Your task to perform on an android device: Show me recent news Image 0: 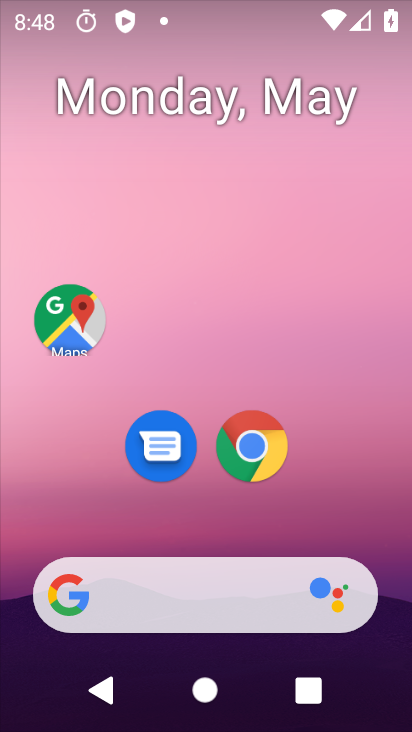
Step 0: click (106, 599)
Your task to perform on an android device: Show me recent news Image 1: 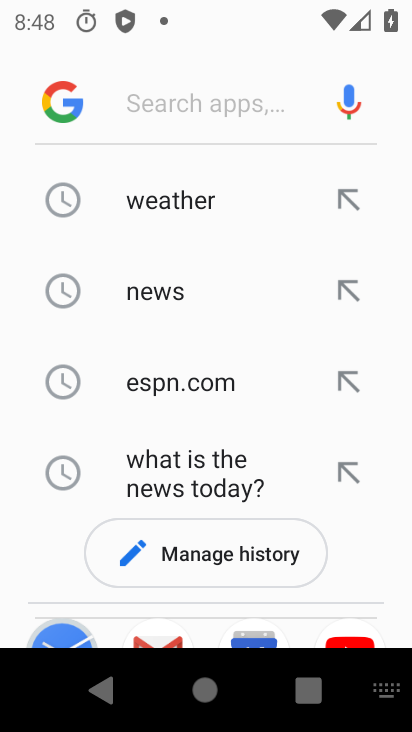
Step 1: type "recent news"
Your task to perform on an android device: Show me recent news Image 2: 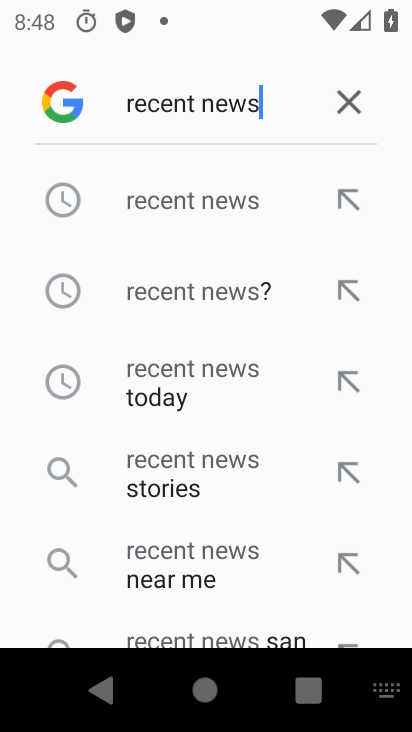
Step 2: click (171, 208)
Your task to perform on an android device: Show me recent news Image 3: 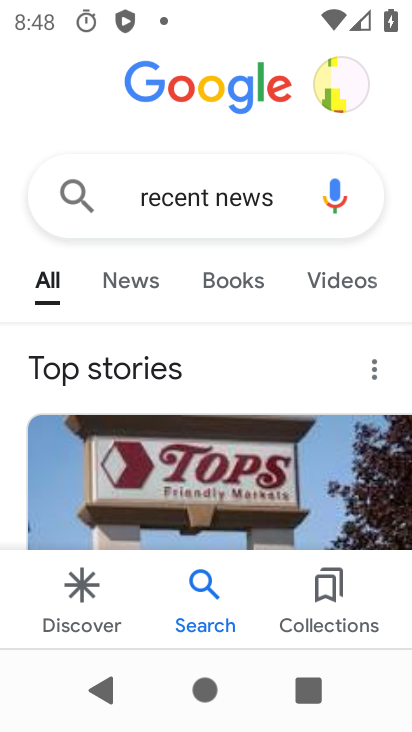
Step 3: drag from (201, 452) to (197, 204)
Your task to perform on an android device: Show me recent news Image 4: 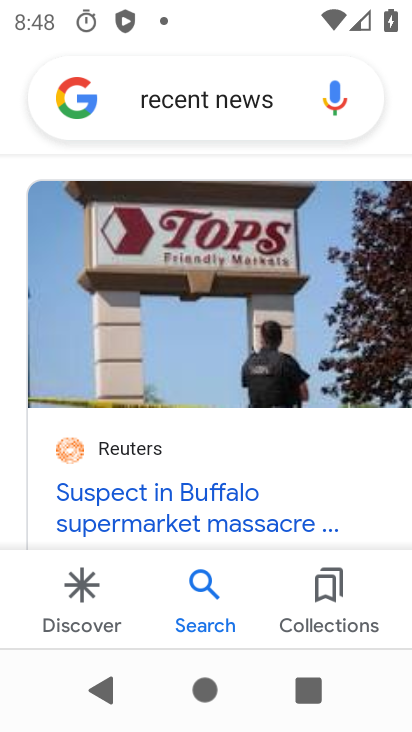
Step 4: drag from (204, 435) to (191, 221)
Your task to perform on an android device: Show me recent news Image 5: 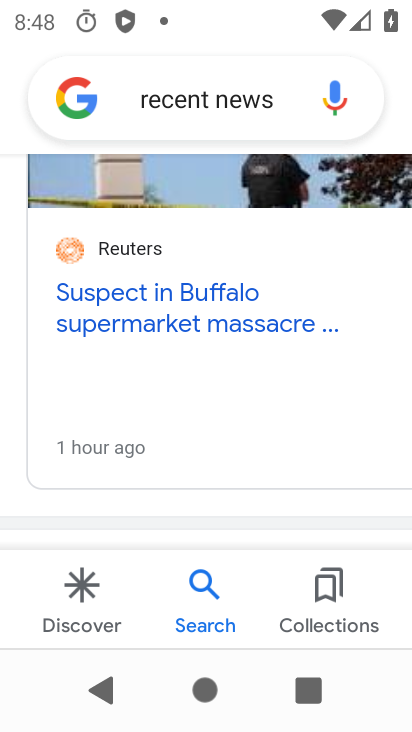
Step 5: drag from (246, 439) to (215, 161)
Your task to perform on an android device: Show me recent news Image 6: 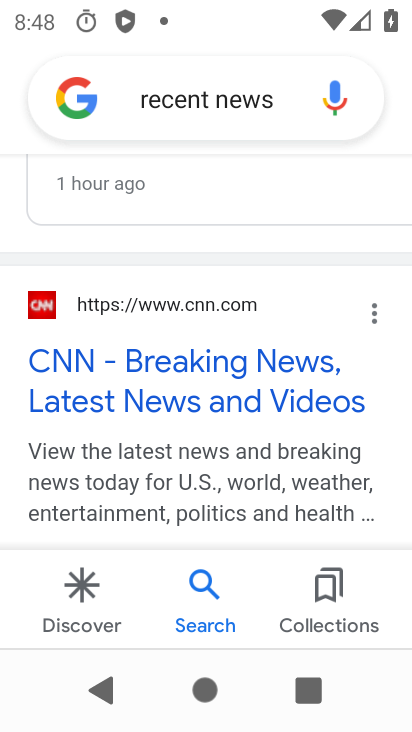
Step 6: drag from (207, 218) to (154, 730)
Your task to perform on an android device: Show me recent news Image 7: 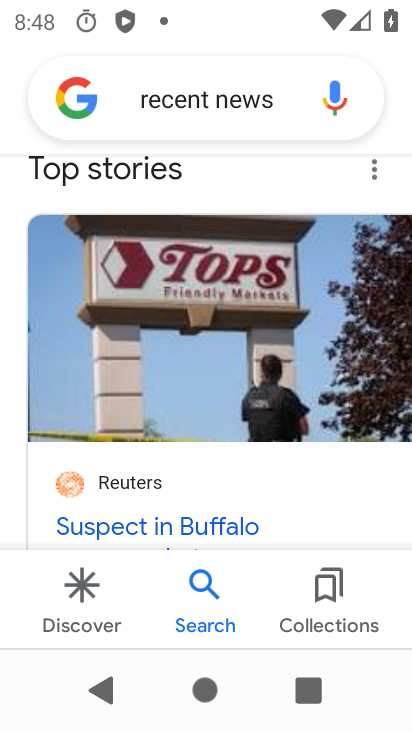
Step 7: drag from (182, 381) to (190, 479)
Your task to perform on an android device: Show me recent news Image 8: 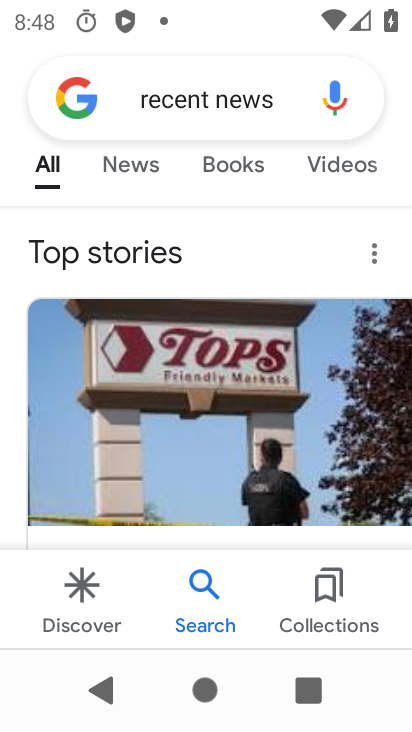
Step 8: click (124, 172)
Your task to perform on an android device: Show me recent news Image 9: 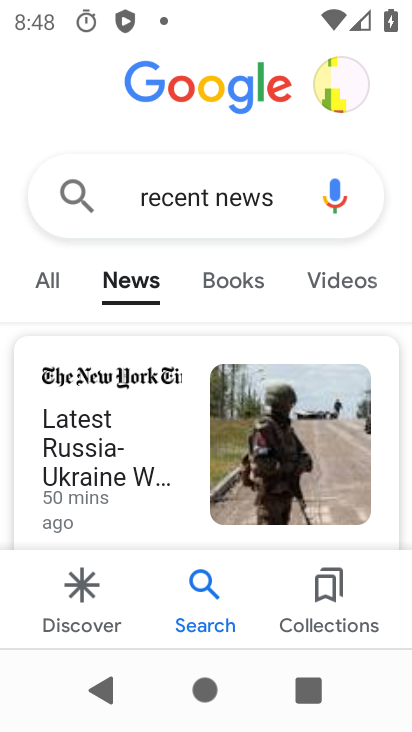
Step 9: drag from (187, 435) to (160, 114)
Your task to perform on an android device: Show me recent news Image 10: 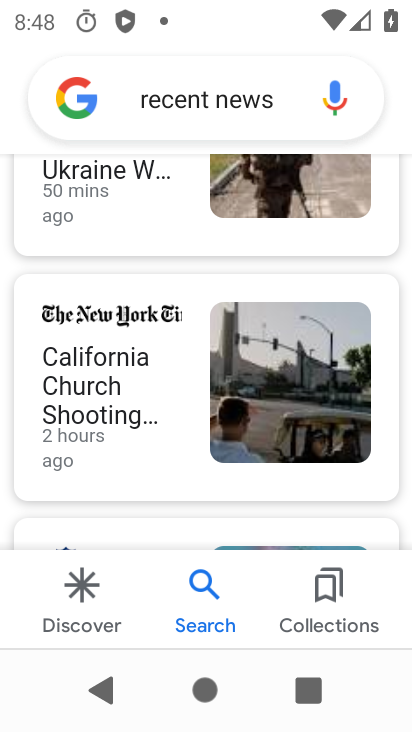
Step 10: click (119, 190)
Your task to perform on an android device: Show me recent news Image 11: 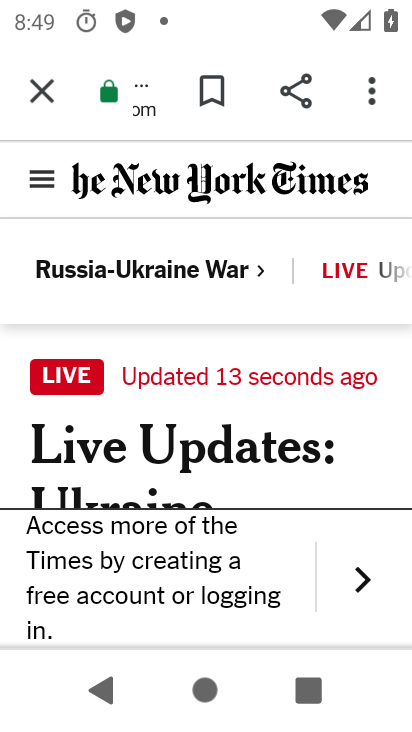
Step 11: task complete